Your task to perform on an android device: Open Chrome and go to the settings page Image 0: 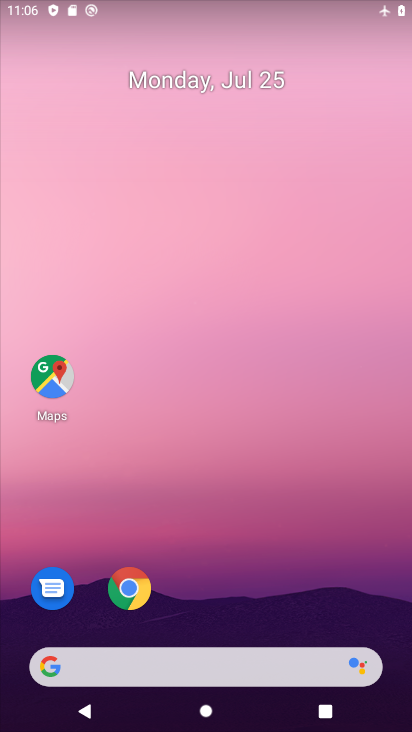
Step 0: click (134, 584)
Your task to perform on an android device: Open Chrome and go to the settings page Image 1: 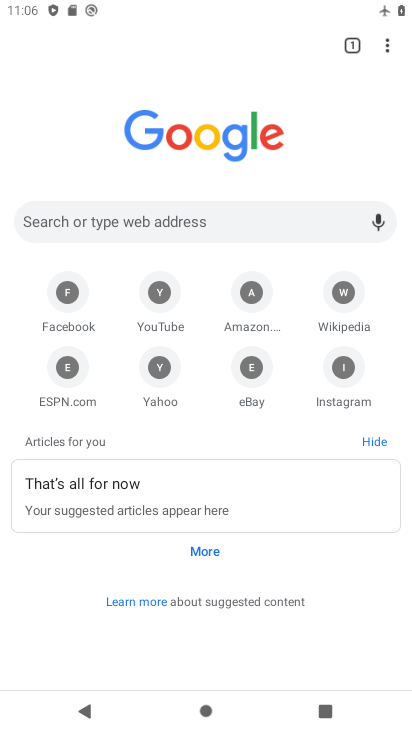
Step 1: click (389, 49)
Your task to perform on an android device: Open Chrome and go to the settings page Image 2: 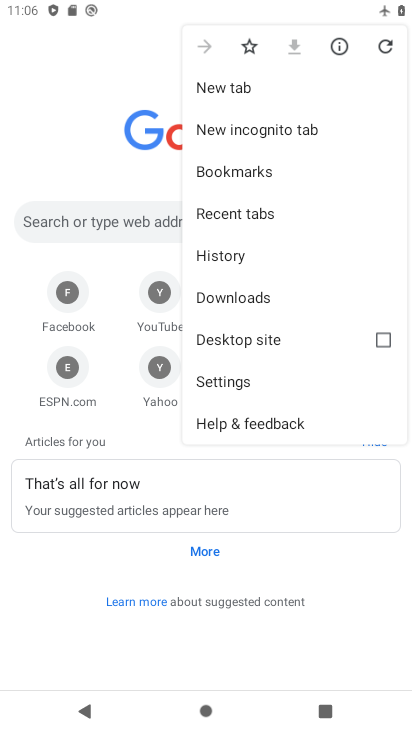
Step 2: click (222, 374)
Your task to perform on an android device: Open Chrome and go to the settings page Image 3: 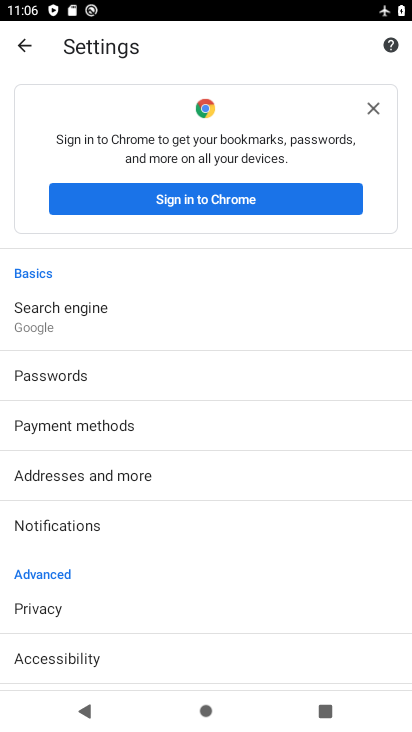
Step 3: task complete